Your task to perform on an android device: toggle sleep mode Image 0: 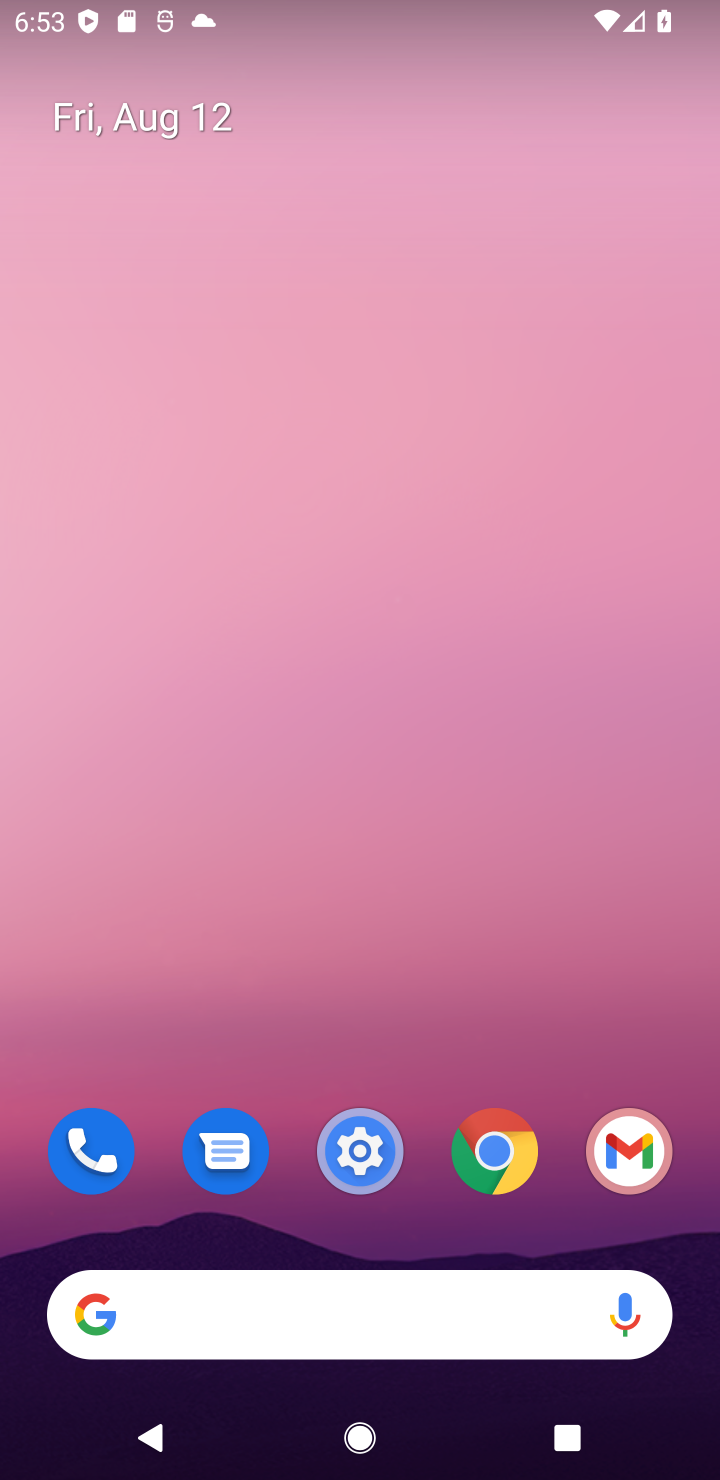
Step 0: drag from (433, 1048) to (310, 29)
Your task to perform on an android device: toggle sleep mode Image 1: 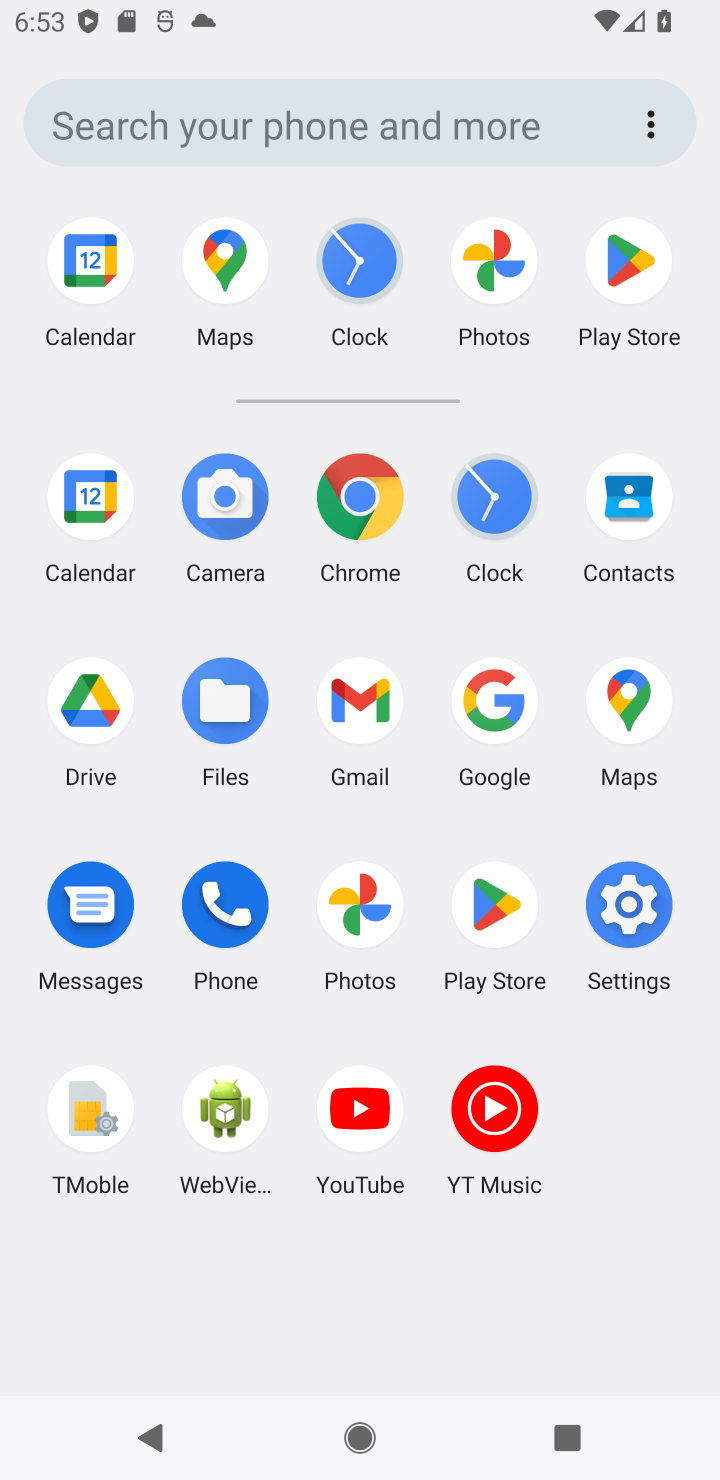
Step 1: click (634, 907)
Your task to perform on an android device: toggle sleep mode Image 2: 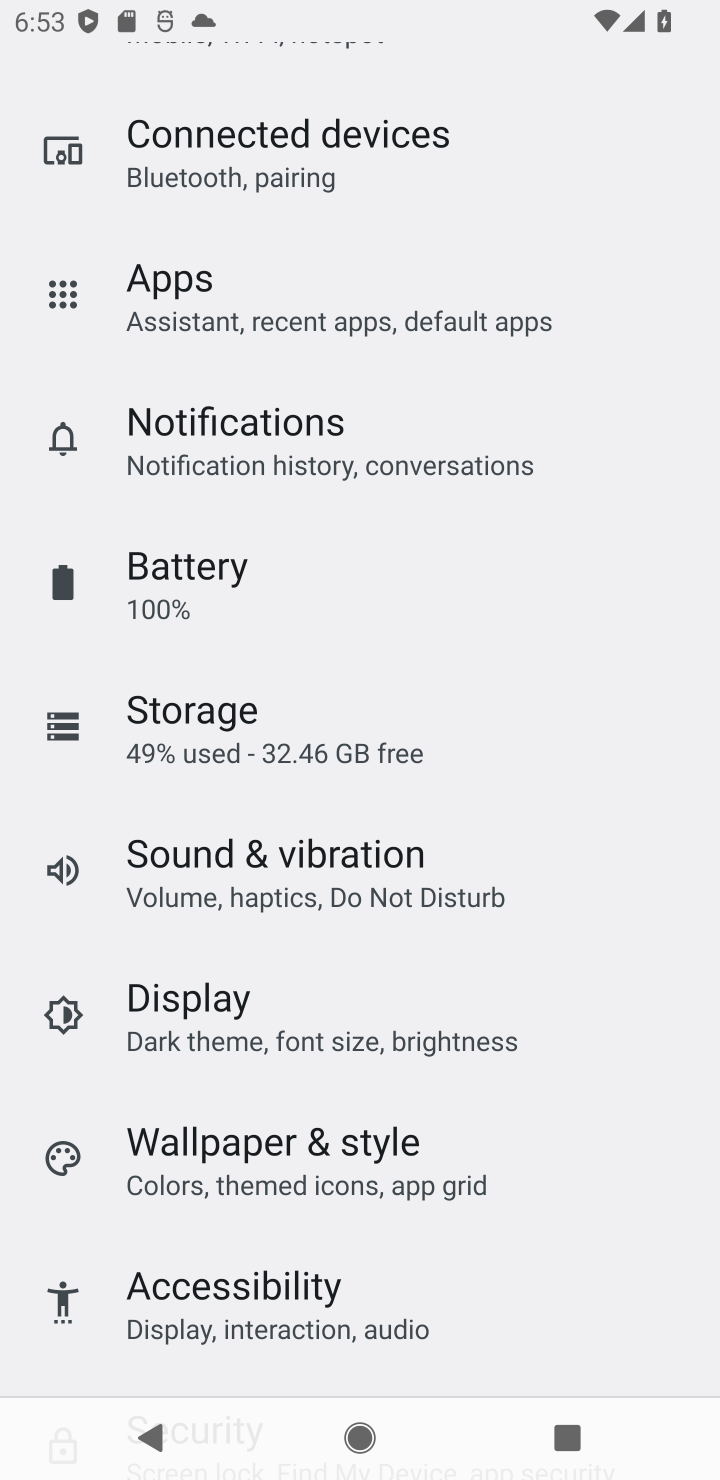
Step 2: drag from (485, 352) to (527, 180)
Your task to perform on an android device: toggle sleep mode Image 3: 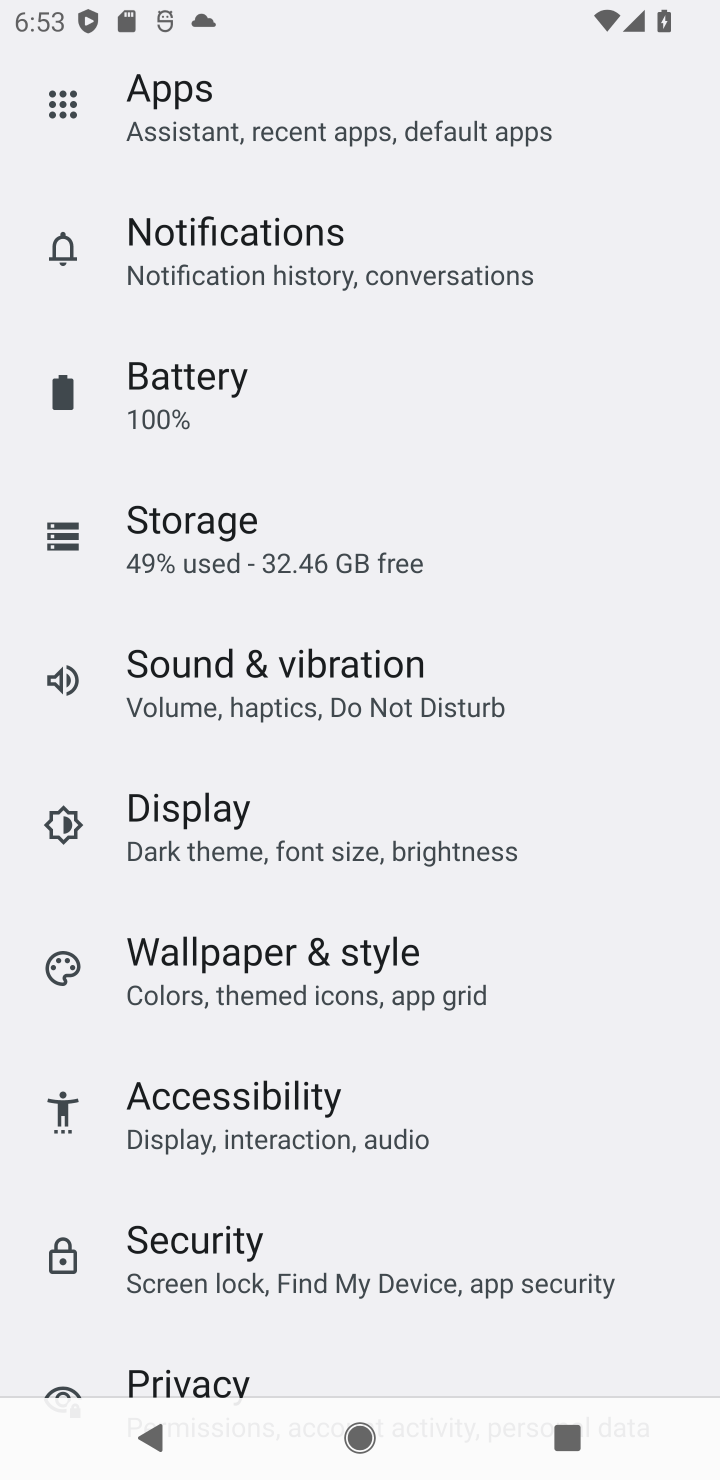
Step 3: click (225, 867)
Your task to perform on an android device: toggle sleep mode Image 4: 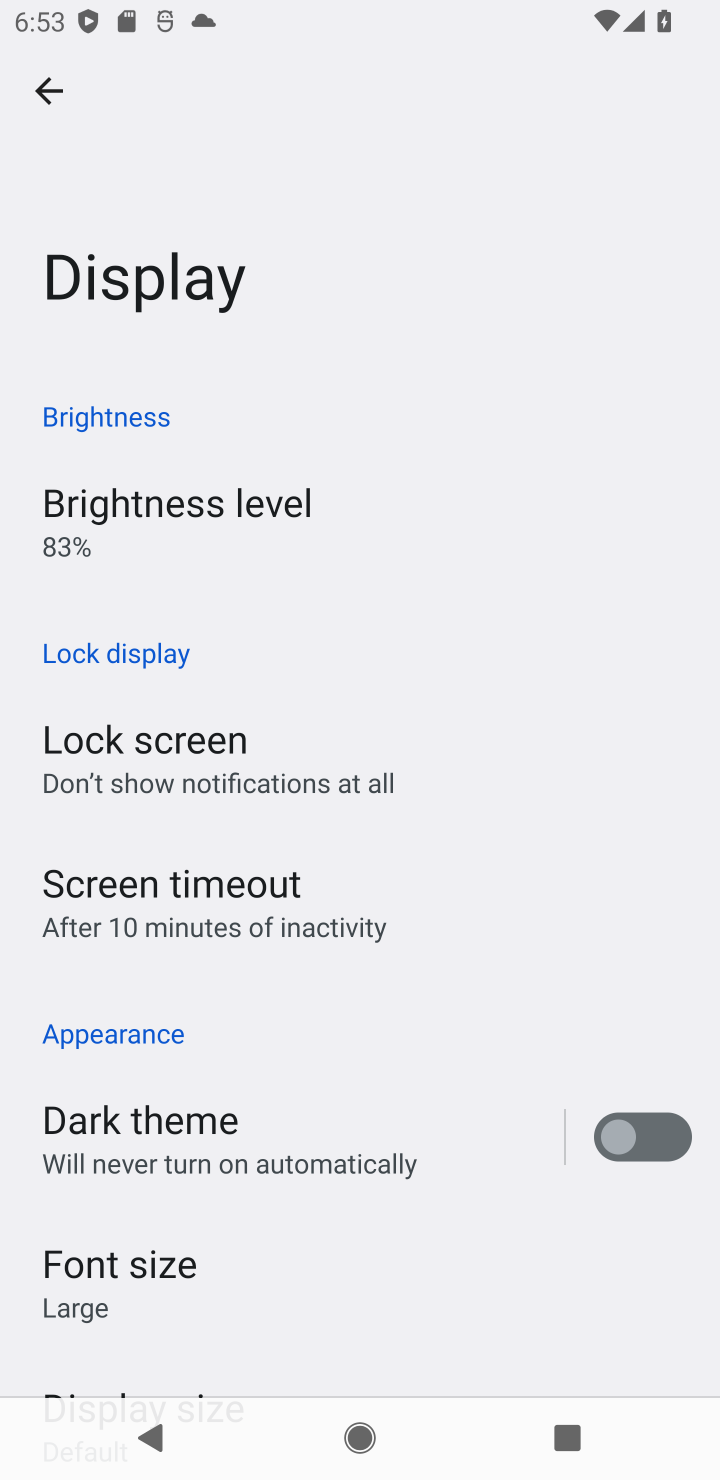
Step 4: click (257, 901)
Your task to perform on an android device: toggle sleep mode Image 5: 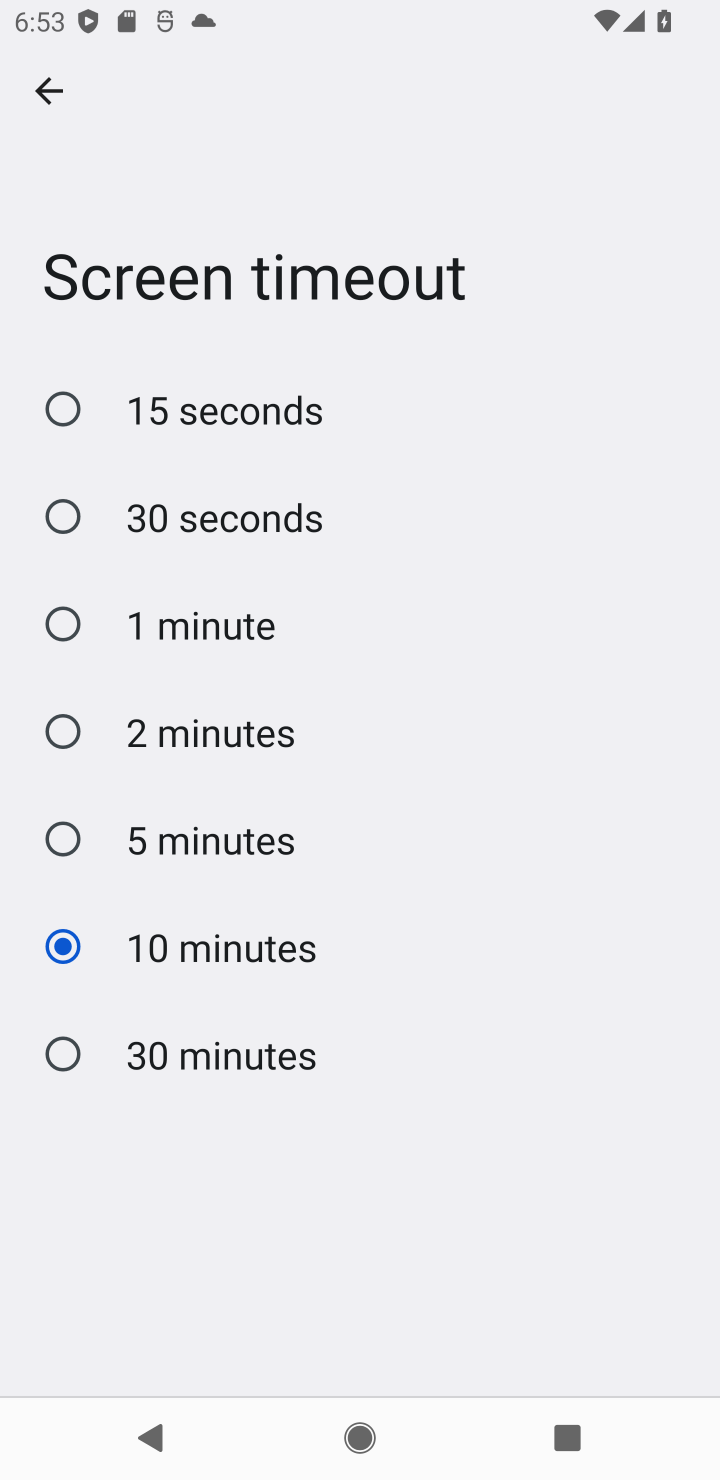
Step 5: click (182, 1047)
Your task to perform on an android device: toggle sleep mode Image 6: 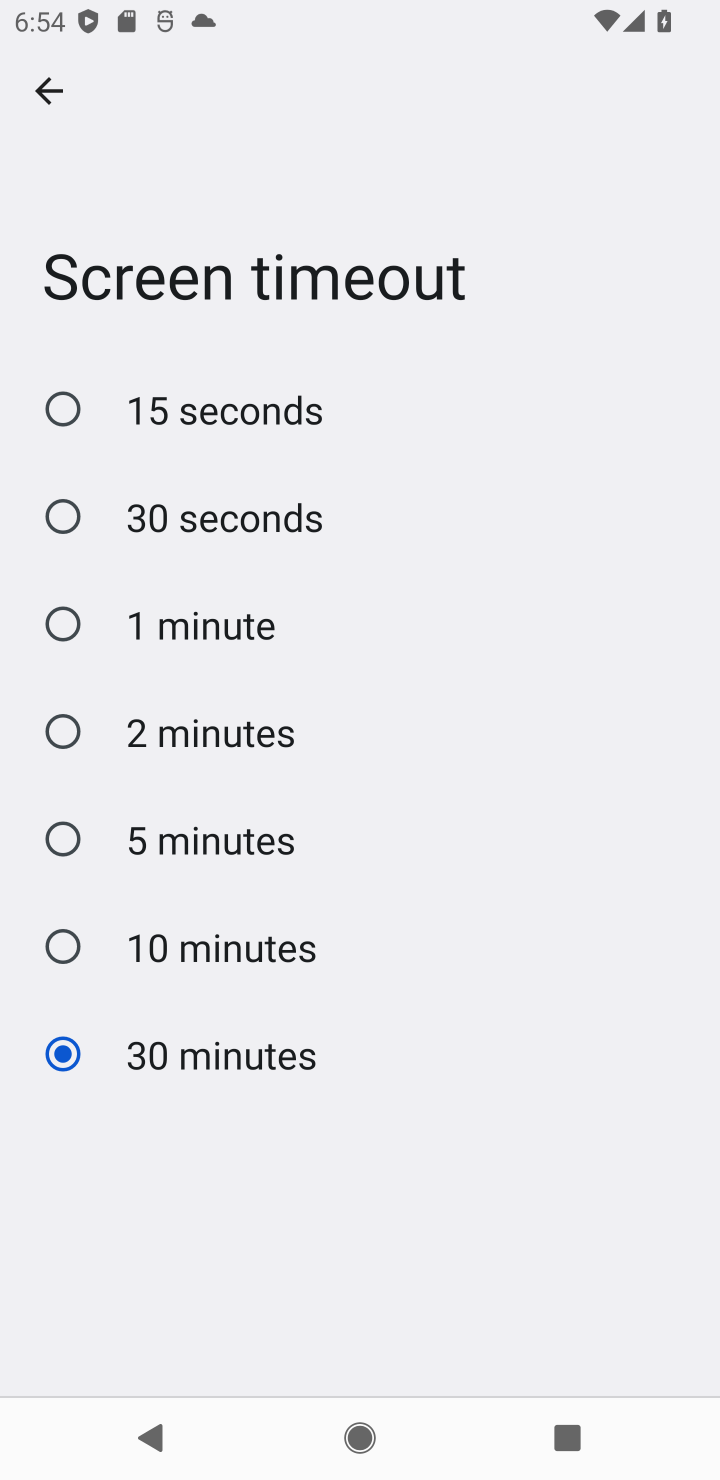
Step 6: task complete